Your task to perform on an android device: open the mobile data screen to see how much data has been used Image 0: 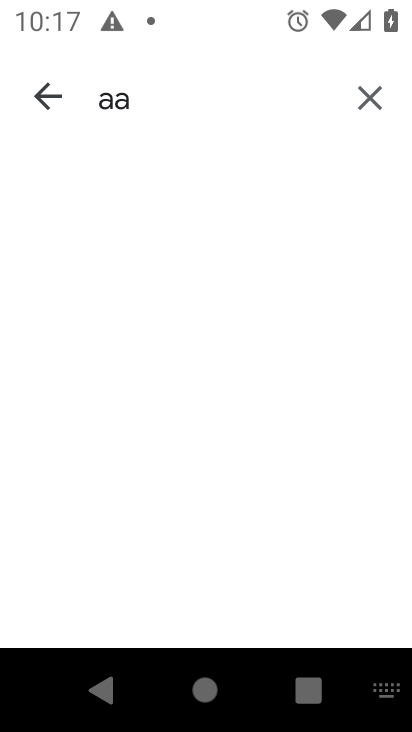
Step 0: press home button
Your task to perform on an android device: open the mobile data screen to see how much data has been used Image 1: 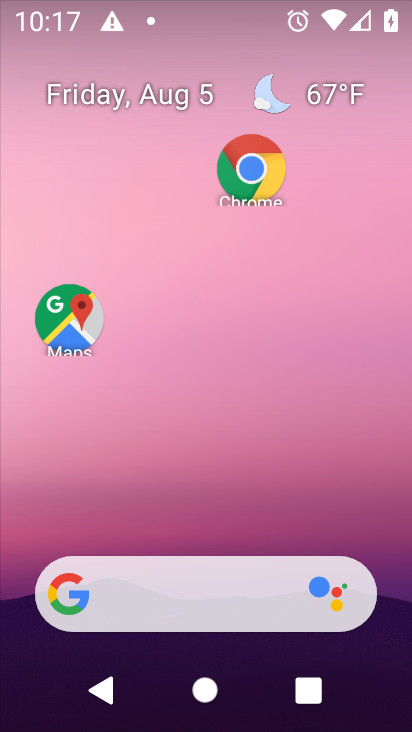
Step 1: drag from (190, 520) to (161, 153)
Your task to perform on an android device: open the mobile data screen to see how much data has been used Image 2: 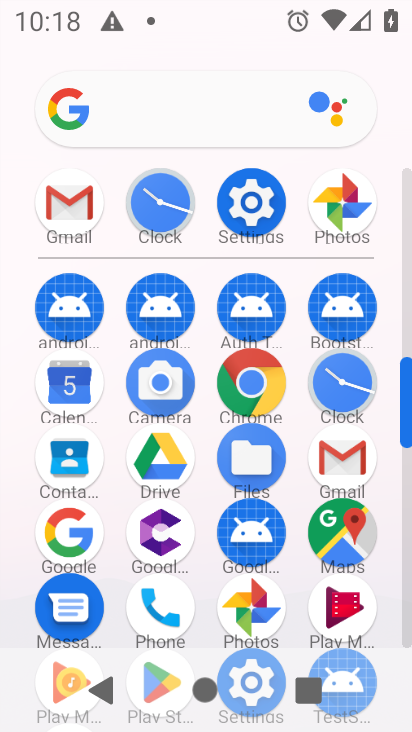
Step 2: click (244, 226)
Your task to perform on an android device: open the mobile data screen to see how much data has been used Image 3: 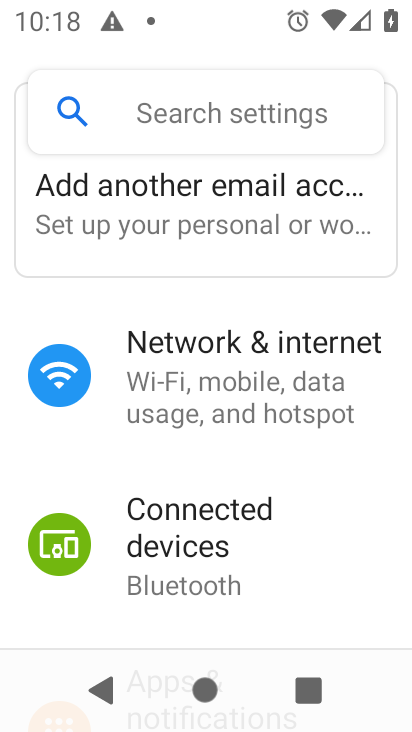
Step 3: drag from (257, 576) to (253, 402)
Your task to perform on an android device: open the mobile data screen to see how much data has been used Image 4: 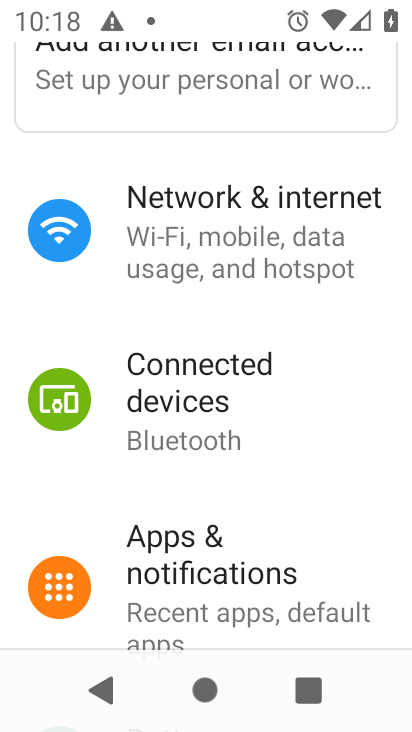
Step 4: click (176, 245)
Your task to perform on an android device: open the mobile data screen to see how much data has been used Image 5: 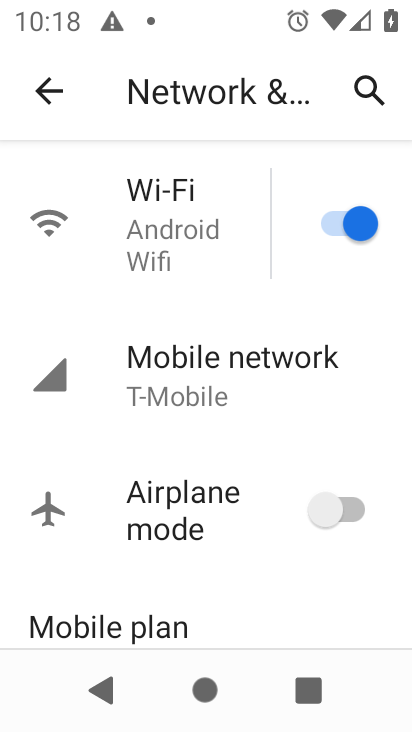
Step 5: drag from (246, 598) to (236, 413)
Your task to perform on an android device: open the mobile data screen to see how much data has been used Image 6: 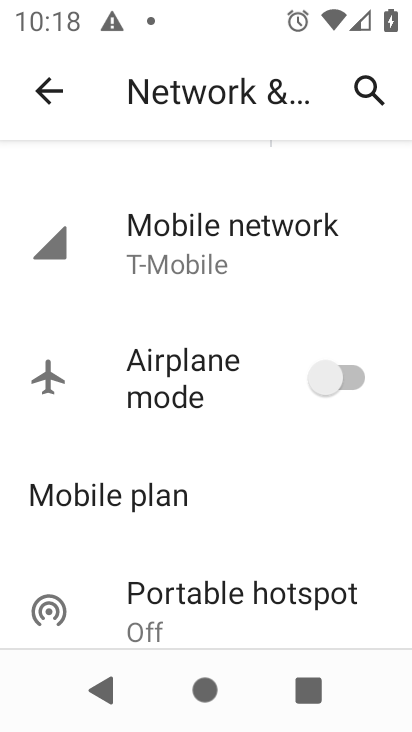
Step 6: click (209, 277)
Your task to perform on an android device: open the mobile data screen to see how much data has been used Image 7: 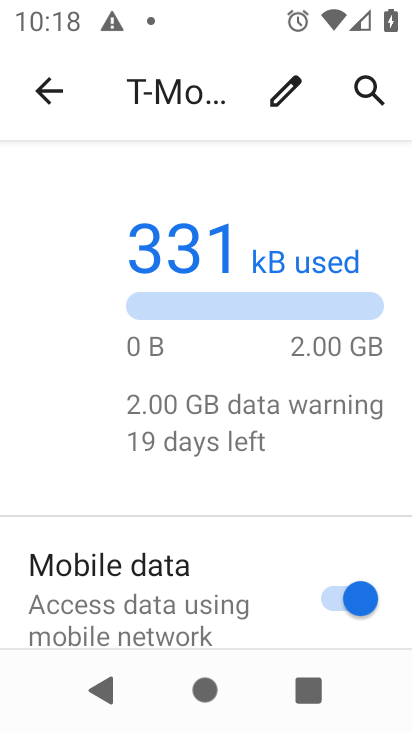
Step 7: task complete